Your task to perform on an android device: turn on improve location accuracy Image 0: 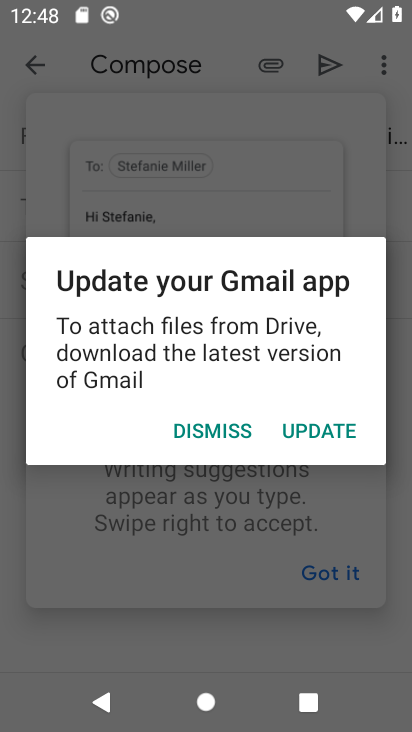
Step 0: press home button
Your task to perform on an android device: turn on improve location accuracy Image 1: 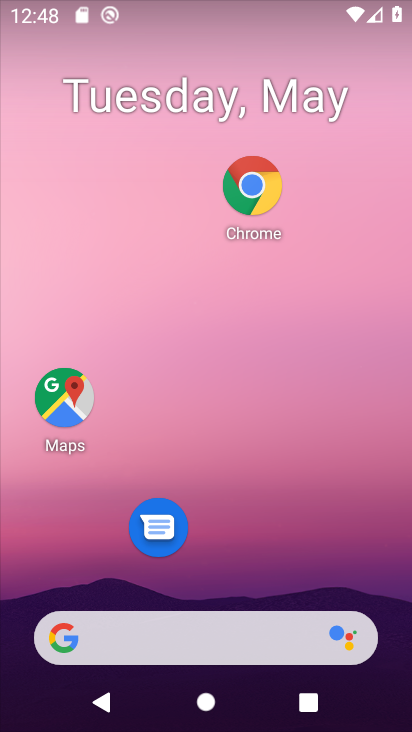
Step 1: drag from (295, 513) to (256, 28)
Your task to perform on an android device: turn on improve location accuracy Image 2: 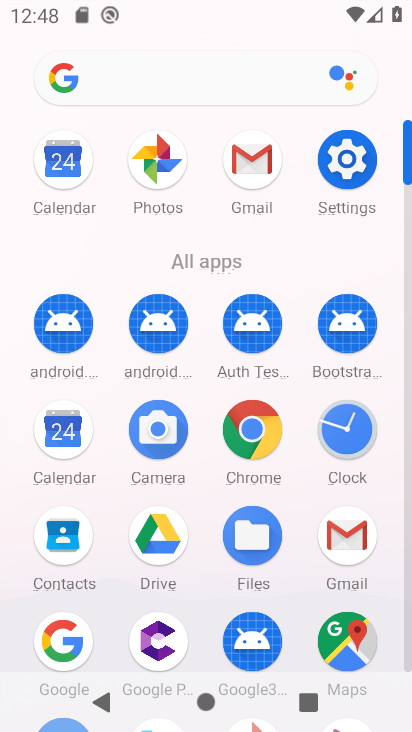
Step 2: click (342, 160)
Your task to perform on an android device: turn on improve location accuracy Image 3: 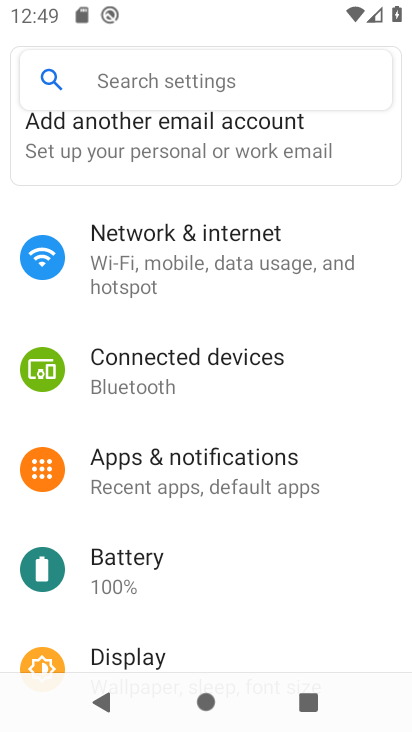
Step 3: drag from (193, 565) to (167, 71)
Your task to perform on an android device: turn on improve location accuracy Image 4: 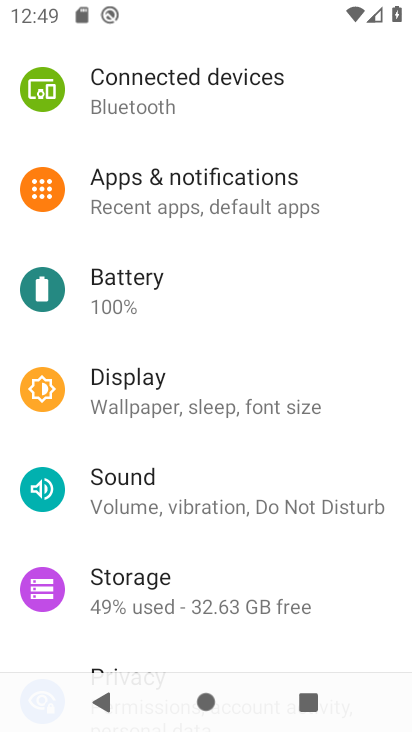
Step 4: drag from (196, 554) to (167, 265)
Your task to perform on an android device: turn on improve location accuracy Image 5: 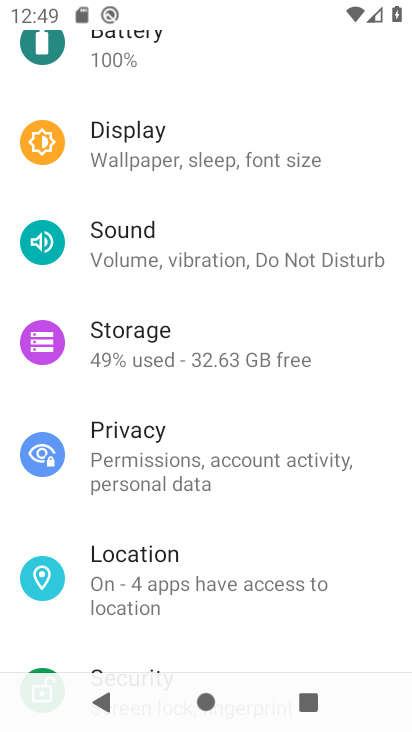
Step 5: click (125, 564)
Your task to perform on an android device: turn on improve location accuracy Image 6: 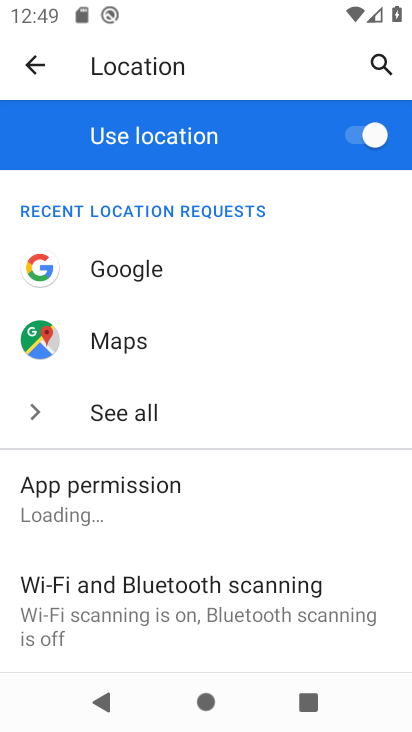
Step 6: drag from (220, 484) to (222, 171)
Your task to perform on an android device: turn on improve location accuracy Image 7: 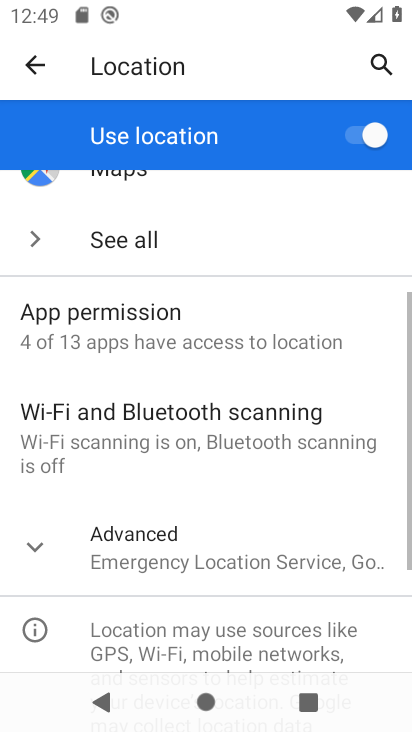
Step 7: click (34, 544)
Your task to perform on an android device: turn on improve location accuracy Image 8: 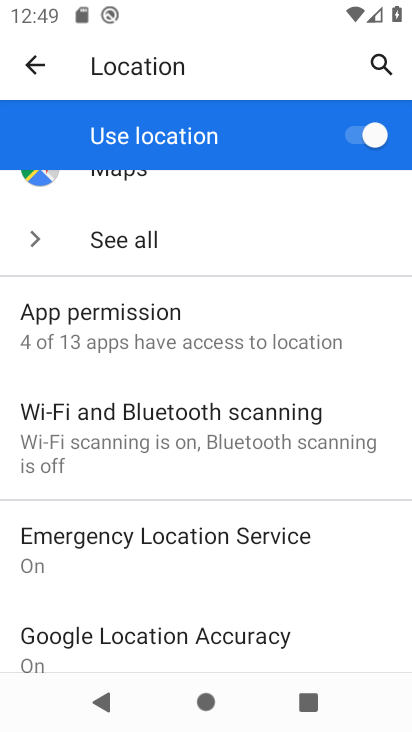
Step 8: click (123, 642)
Your task to perform on an android device: turn on improve location accuracy Image 9: 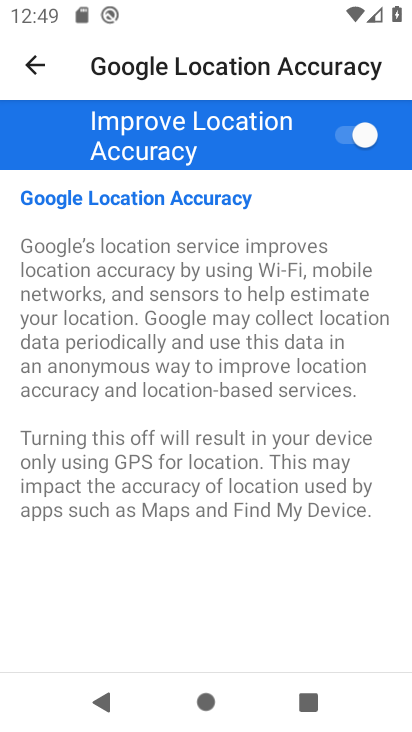
Step 9: task complete